Your task to perform on an android device: Open calendar and show me the third week of next month Image 0: 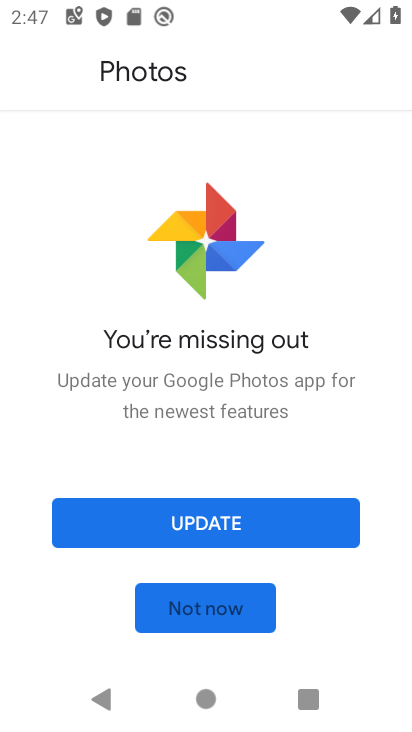
Step 0: press home button
Your task to perform on an android device: Open calendar and show me the third week of next month Image 1: 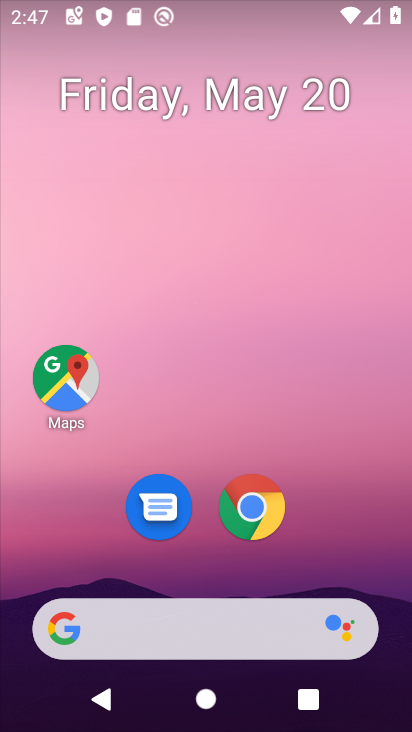
Step 1: drag from (212, 728) to (212, 47)
Your task to perform on an android device: Open calendar and show me the third week of next month Image 2: 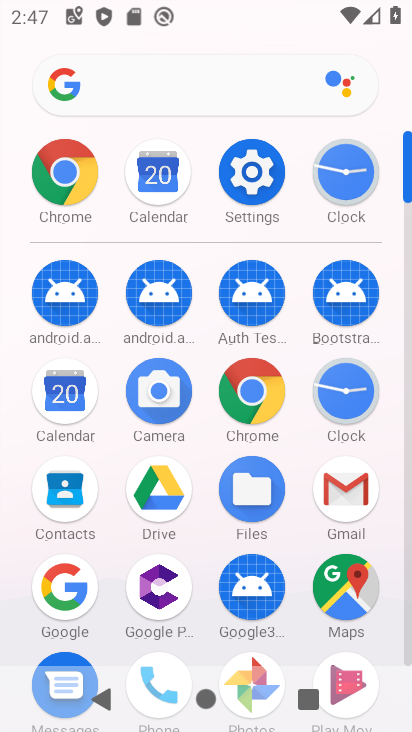
Step 2: click (60, 408)
Your task to perform on an android device: Open calendar and show me the third week of next month Image 3: 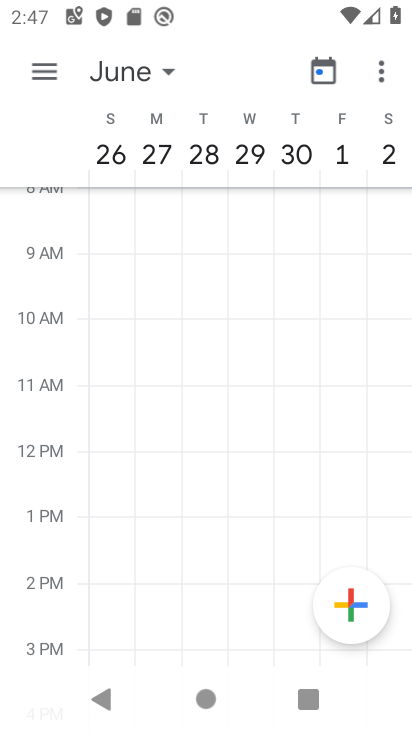
Step 3: click (134, 69)
Your task to perform on an android device: Open calendar and show me the third week of next month Image 4: 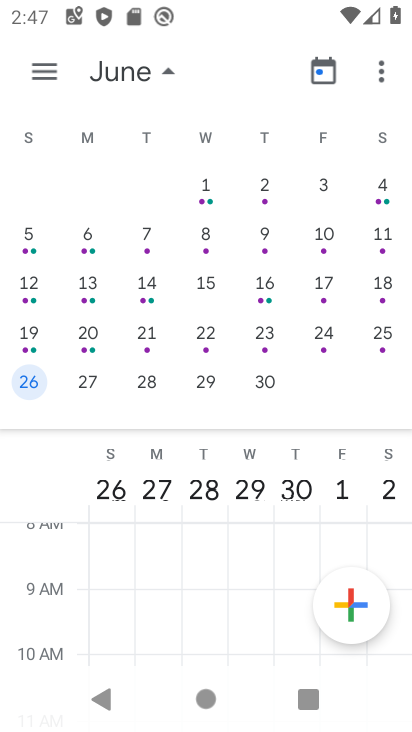
Step 4: click (86, 330)
Your task to perform on an android device: Open calendar and show me the third week of next month Image 5: 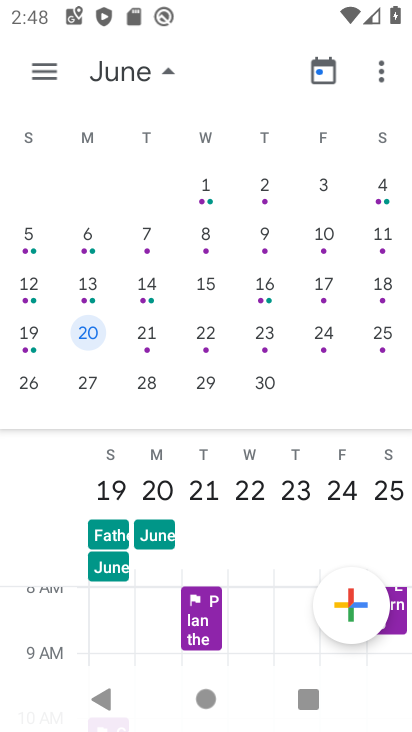
Step 5: task complete